Your task to perform on an android device: Open my contact list Image 0: 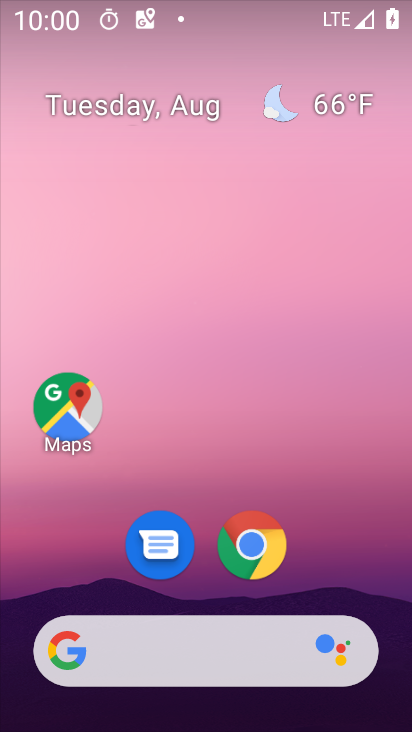
Step 0: drag from (175, 667) to (245, 112)
Your task to perform on an android device: Open my contact list Image 1: 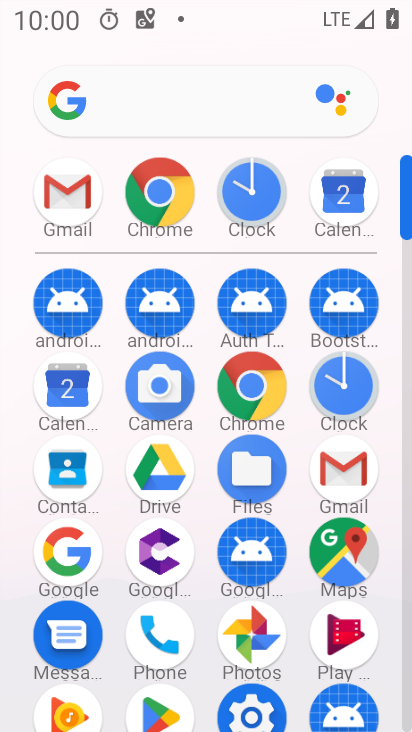
Step 1: click (70, 480)
Your task to perform on an android device: Open my contact list Image 2: 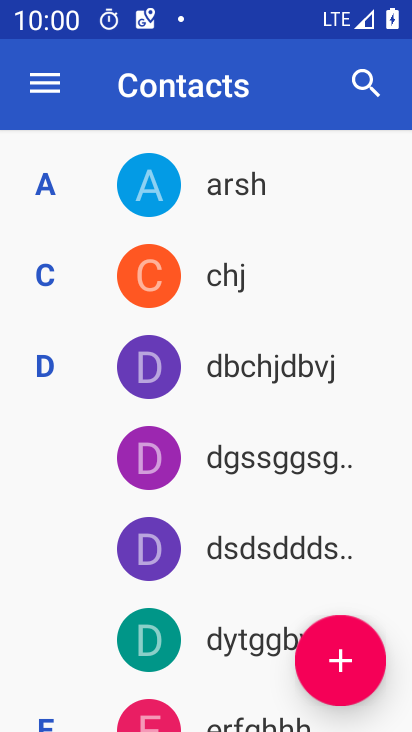
Step 2: task complete